Your task to perform on an android device: Go to display settings Image 0: 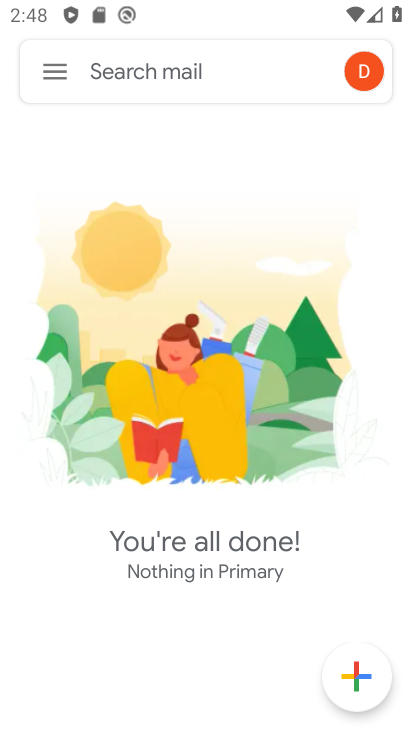
Step 0: press home button
Your task to perform on an android device: Go to display settings Image 1: 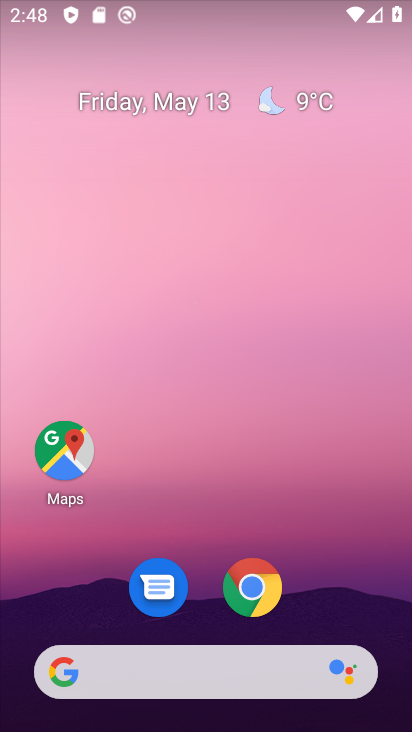
Step 1: drag from (318, 621) to (318, 202)
Your task to perform on an android device: Go to display settings Image 2: 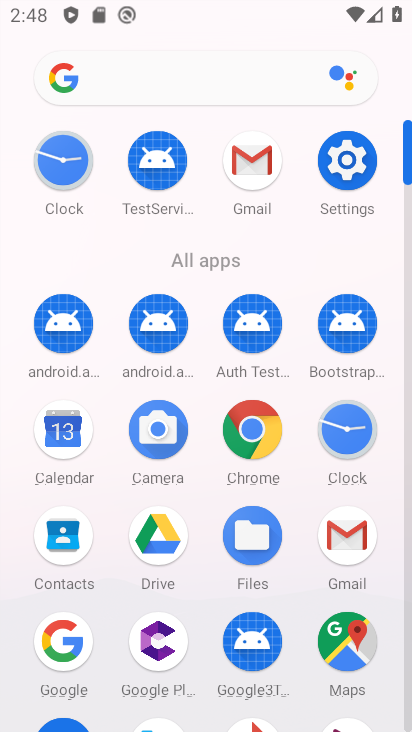
Step 2: click (359, 179)
Your task to perform on an android device: Go to display settings Image 3: 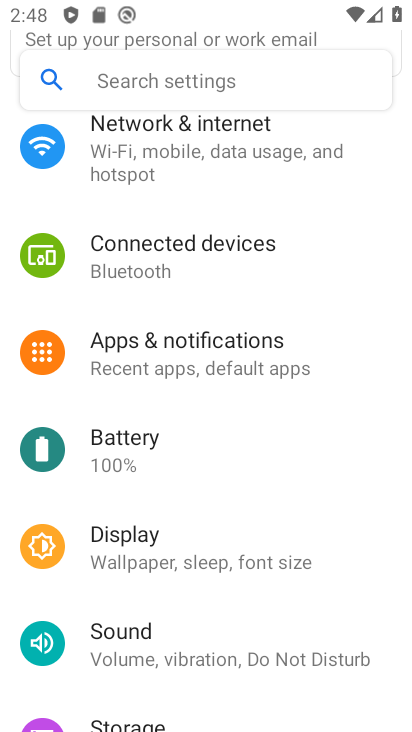
Step 3: click (223, 557)
Your task to perform on an android device: Go to display settings Image 4: 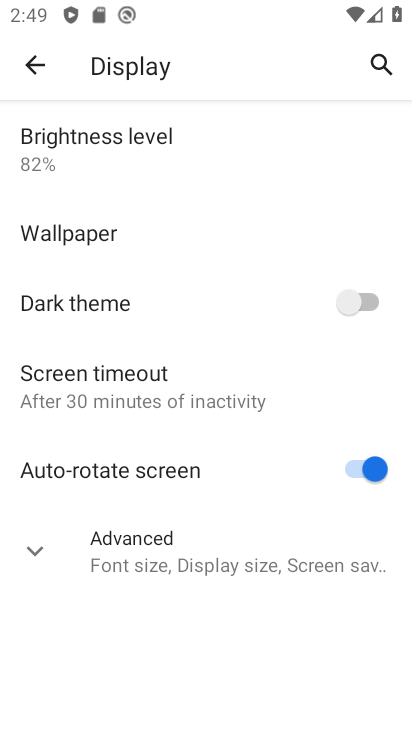
Step 4: task complete